Your task to perform on an android device: Open Chrome and go to settings Image 0: 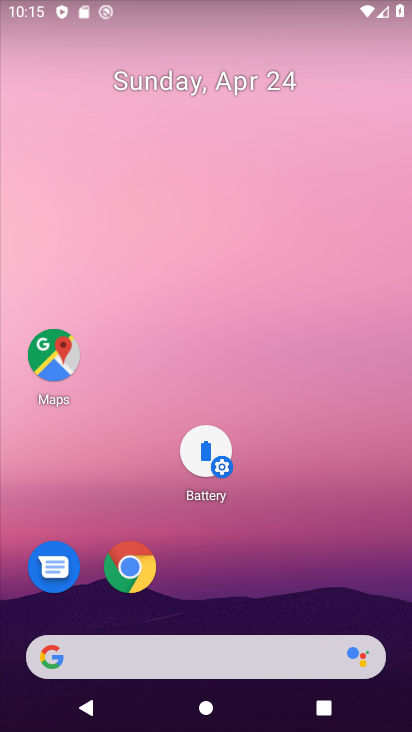
Step 0: click (122, 561)
Your task to perform on an android device: Open Chrome and go to settings Image 1: 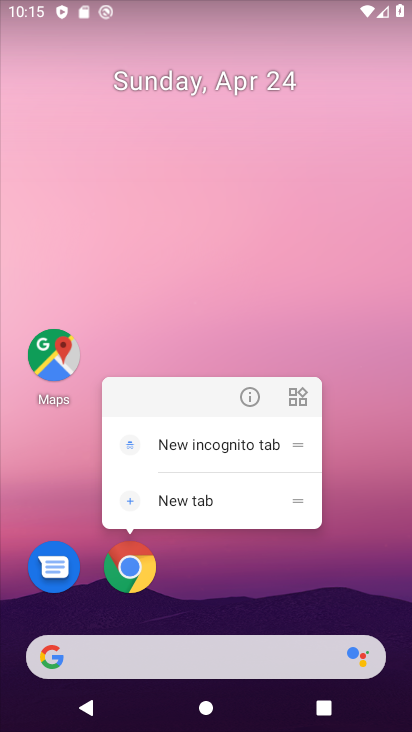
Step 1: click (244, 395)
Your task to perform on an android device: Open Chrome and go to settings Image 2: 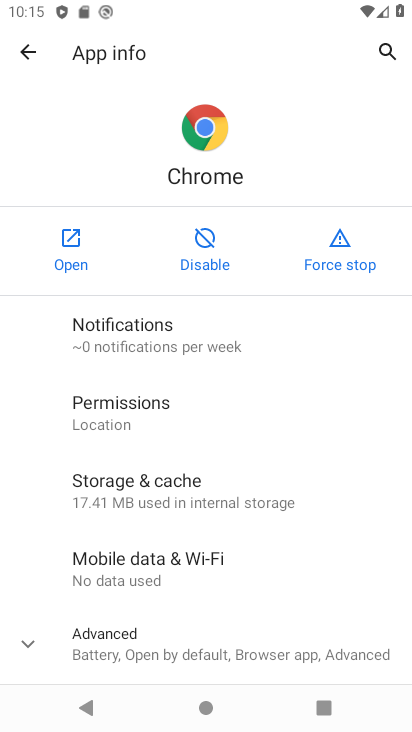
Step 2: click (62, 252)
Your task to perform on an android device: Open Chrome and go to settings Image 3: 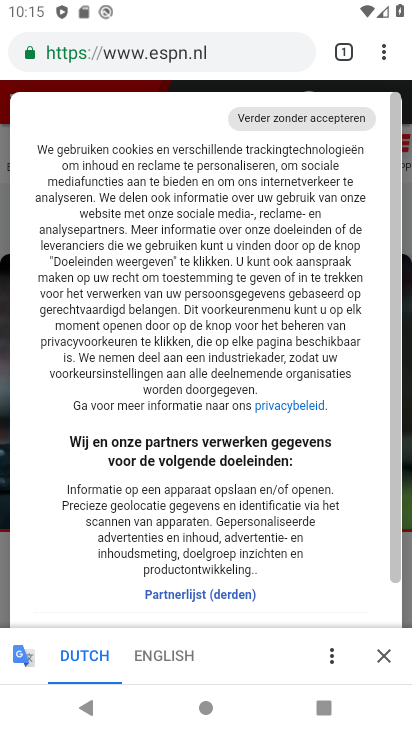
Step 3: press back button
Your task to perform on an android device: Open Chrome and go to settings Image 4: 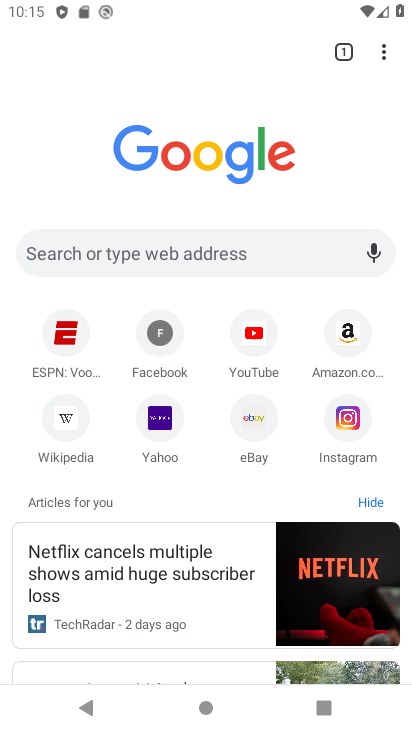
Step 4: click (384, 44)
Your task to perform on an android device: Open Chrome and go to settings Image 5: 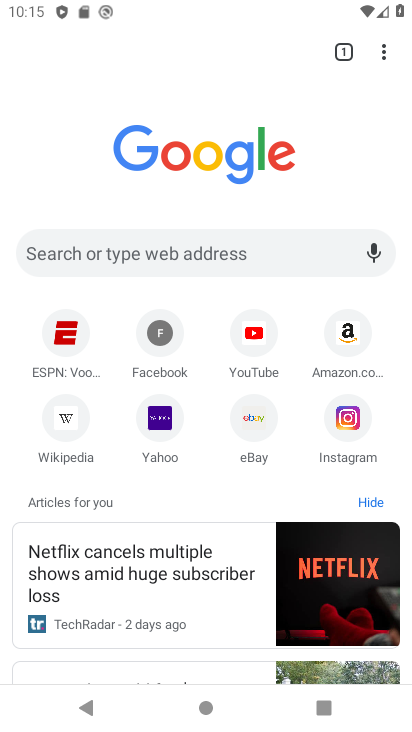
Step 5: click (379, 48)
Your task to perform on an android device: Open Chrome and go to settings Image 6: 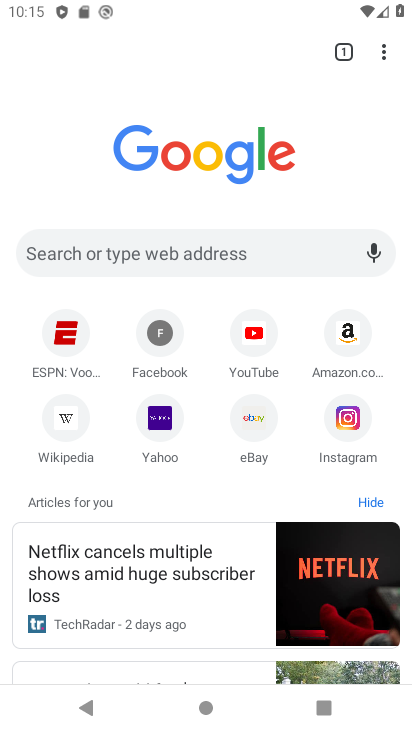
Step 6: click (378, 49)
Your task to perform on an android device: Open Chrome and go to settings Image 7: 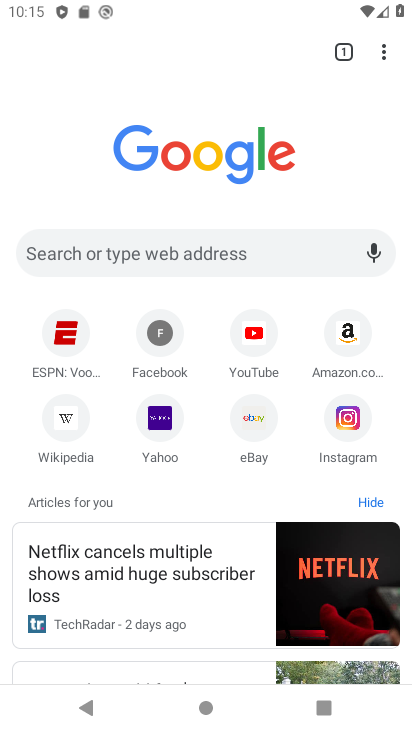
Step 7: click (386, 45)
Your task to perform on an android device: Open Chrome and go to settings Image 8: 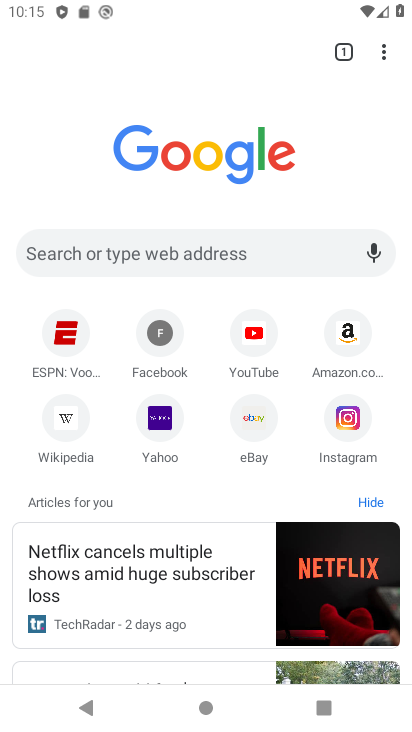
Step 8: click (381, 55)
Your task to perform on an android device: Open Chrome and go to settings Image 9: 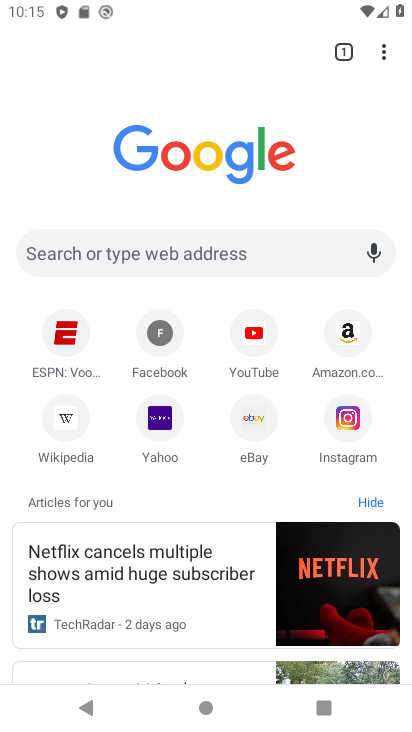
Step 9: click (379, 42)
Your task to perform on an android device: Open Chrome and go to settings Image 10: 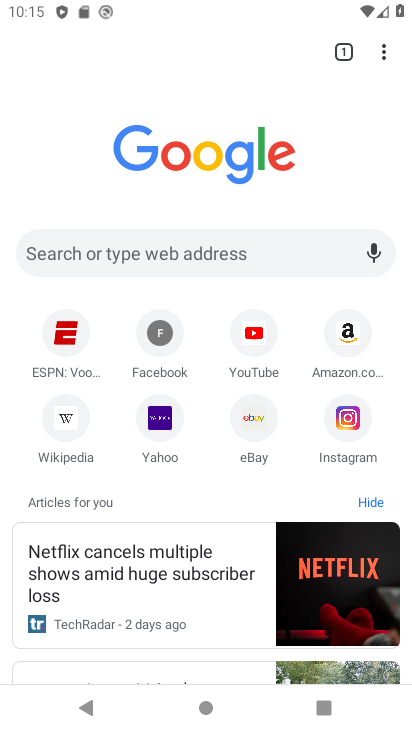
Step 10: drag from (405, 83) to (396, 35)
Your task to perform on an android device: Open Chrome and go to settings Image 11: 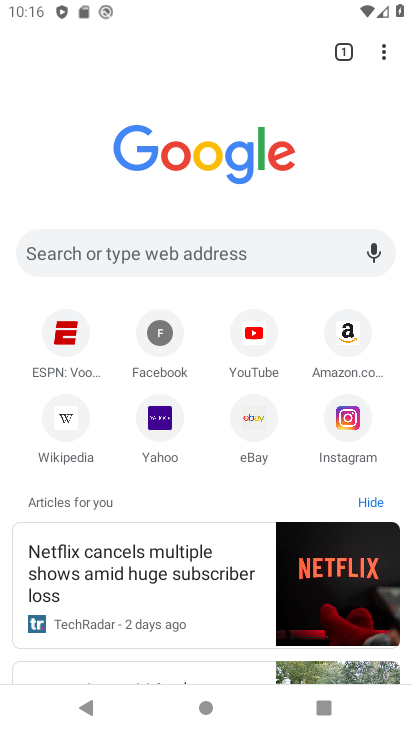
Step 11: drag from (405, 83) to (388, 47)
Your task to perform on an android device: Open Chrome and go to settings Image 12: 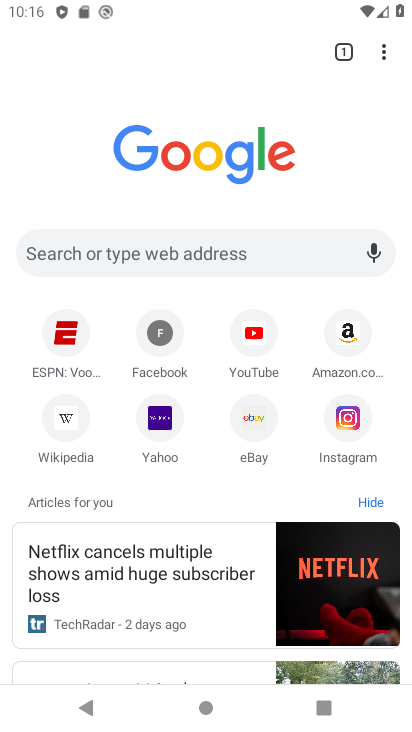
Step 12: click (379, 55)
Your task to perform on an android device: Open Chrome and go to settings Image 13: 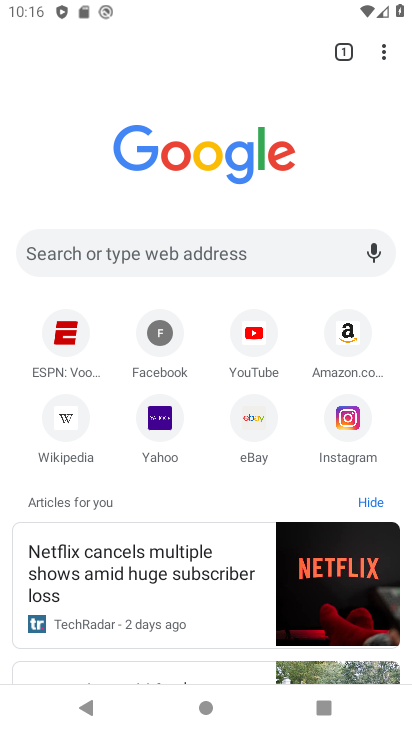
Step 13: click (383, 57)
Your task to perform on an android device: Open Chrome and go to settings Image 14: 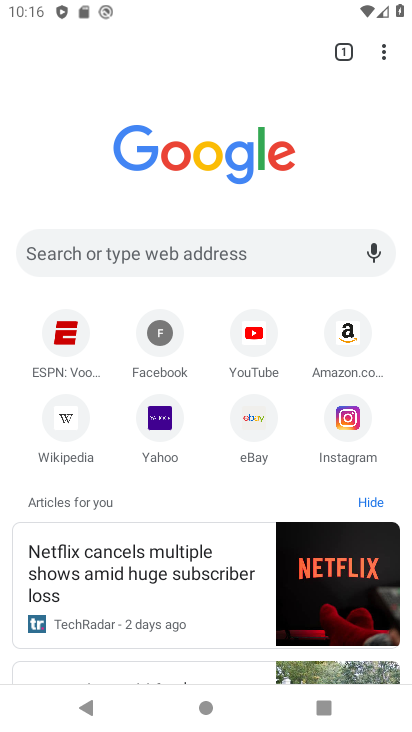
Step 14: click (383, 57)
Your task to perform on an android device: Open Chrome and go to settings Image 15: 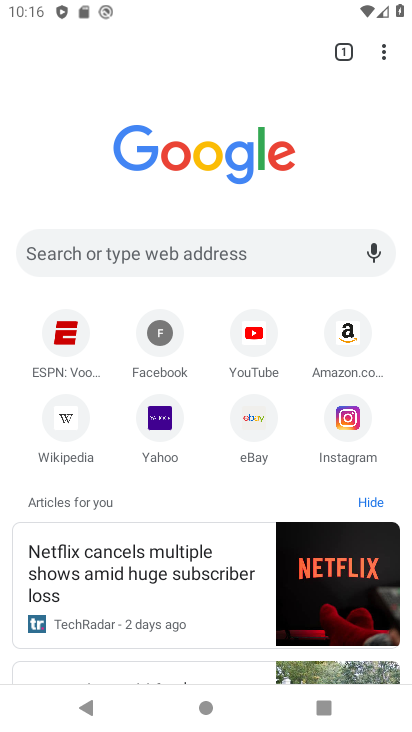
Step 15: click (383, 57)
Your task to perform on an android device: Open Chrome and go to settings Image 16: 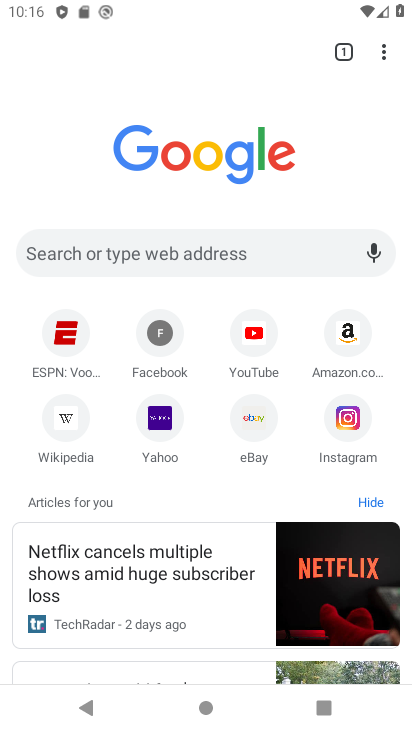
Step 16: click (395, 52)
Your task to perform on an android device: Open Chrome and go to settings Image 17: 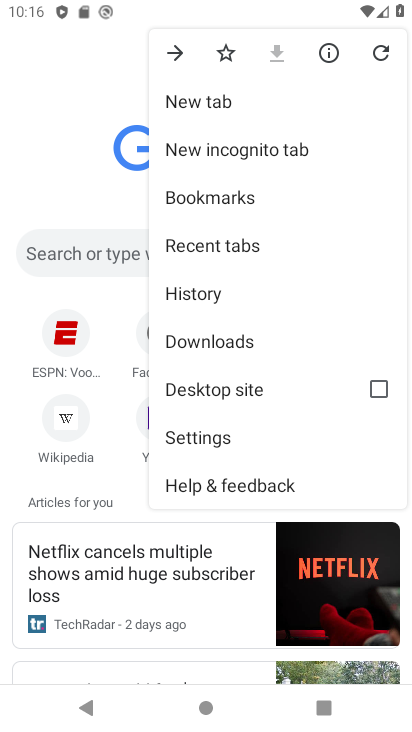
Step 17: click (223, 450)
Your task to perform on an android device: Open Chrome and go to settings Image 18: 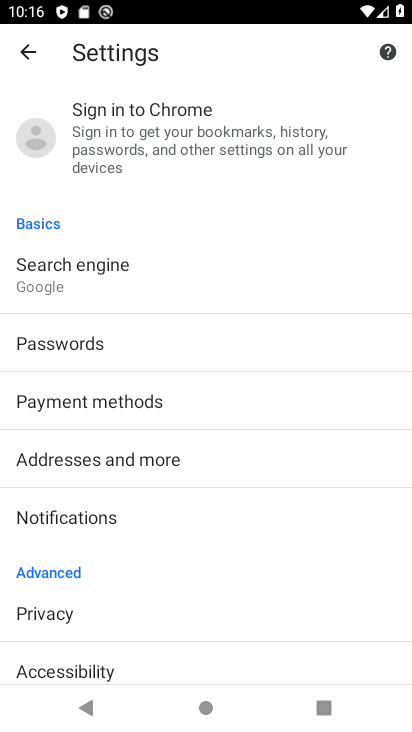
Step 18: task complete